Your task to perform on an android device: Go to settings Image 0: 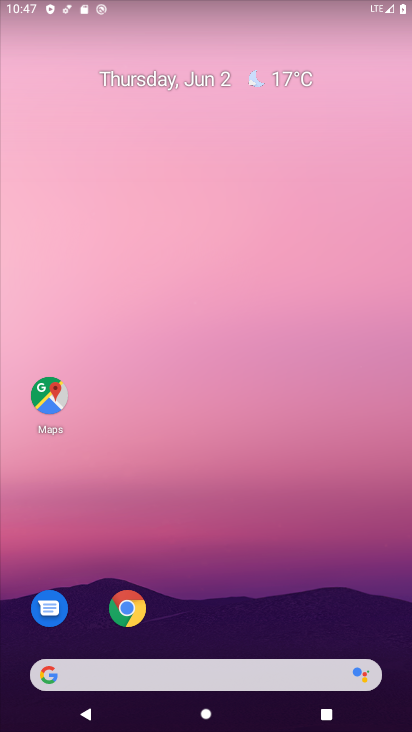
Step 0: drag from (267, 600) to (155, 4)
Your task to perform on an android device: Go to settings Image 1: 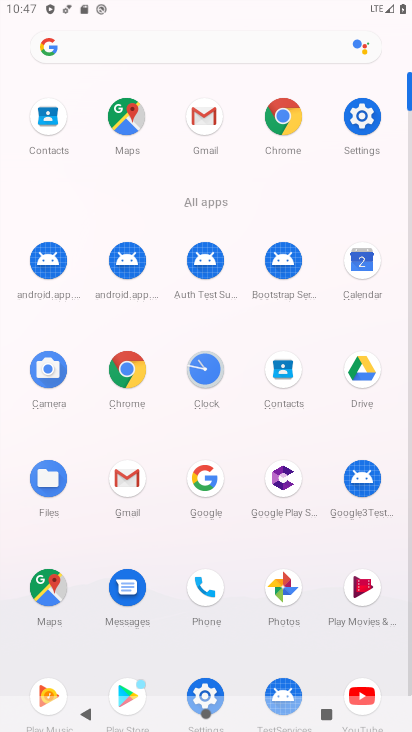
Step 1: click (360, 116)
Your task to perform on an android device: Go to settings Image 2: 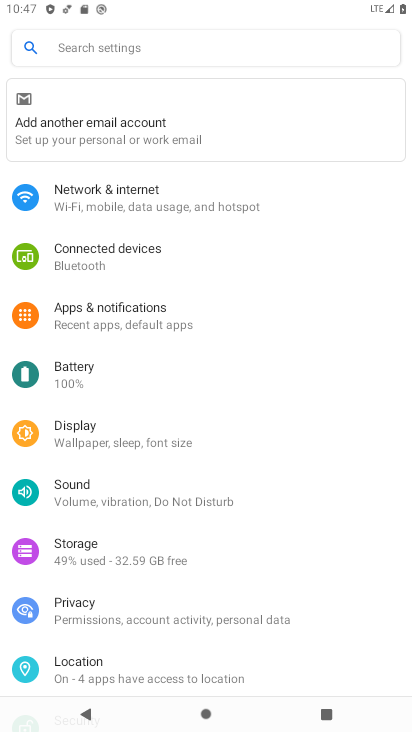
Step 2: task complete